Your task to perform on an android device: What's the weather? Image 0: 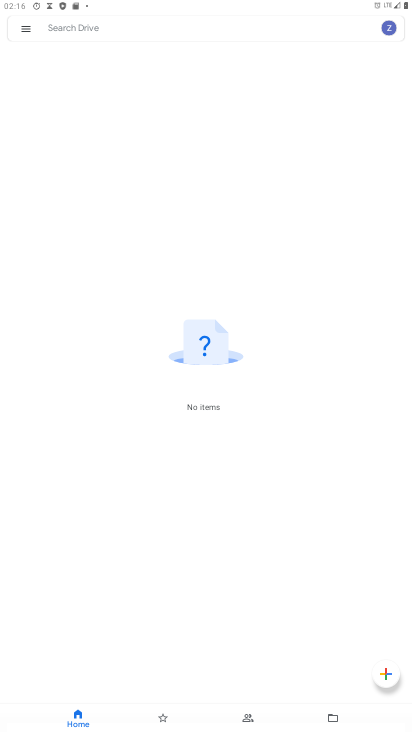
Step 0: press home button
Your task to perform on an android device: What's the weather? Image 1: 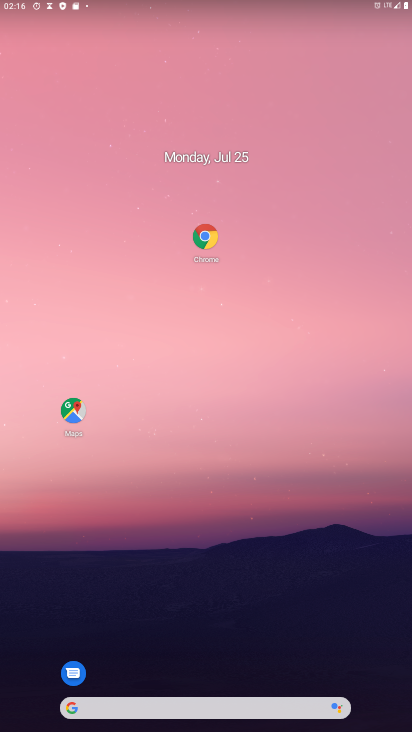
Step 1: drag from (157, 637) to (262, 0)
Your task to perform on an android device: What's the weather? Image 2: 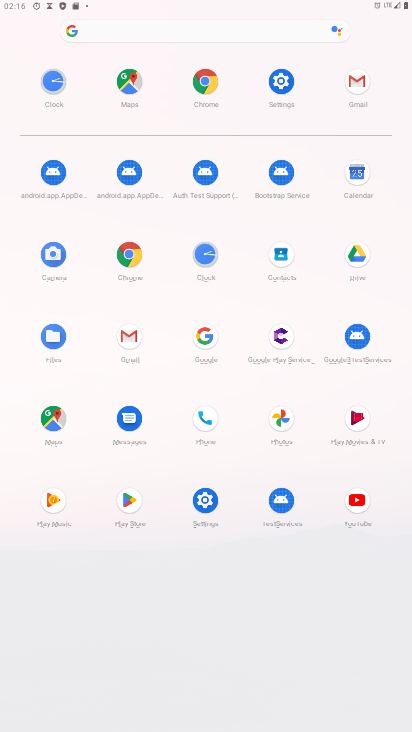
Step 2: click (129, 254)
Your task to perform on an android device: What's the weather? Image 3: 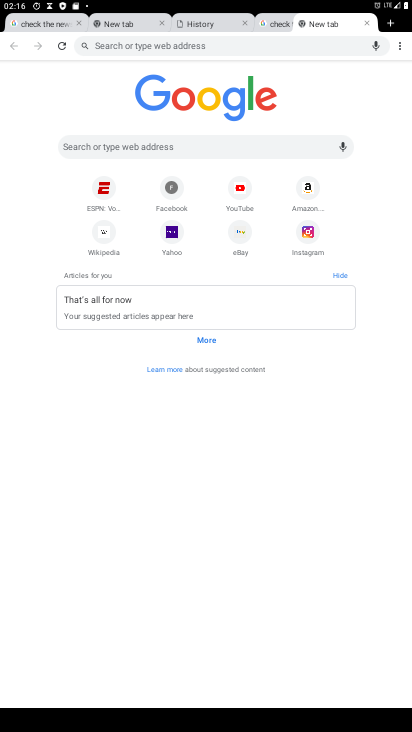
Step 3: click (256, 148)
Your task to perform on an android device: What's the weather? Image 4: 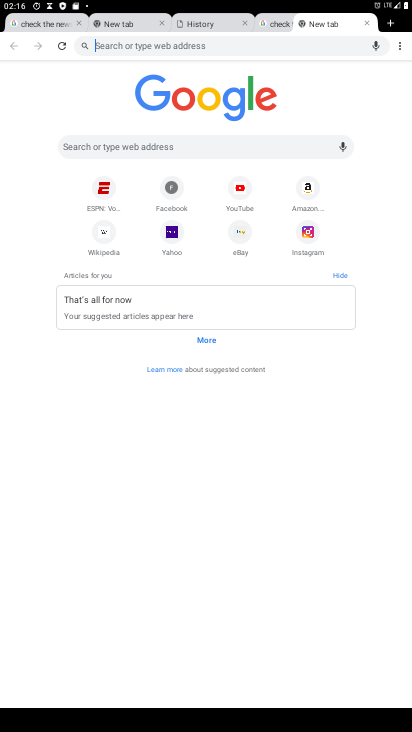
Step 4: click (256, 148)
Your task to perform on an android device: What's the weather? Image 5: 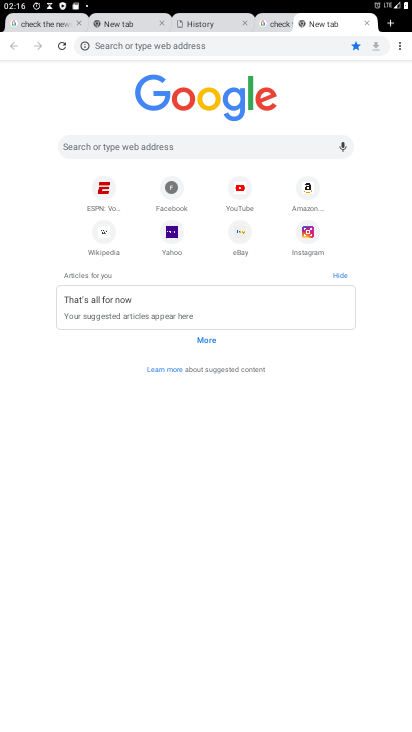
Step 5: click (229, 52)
Your task to perform on an android device: What's the weather? Image 6: 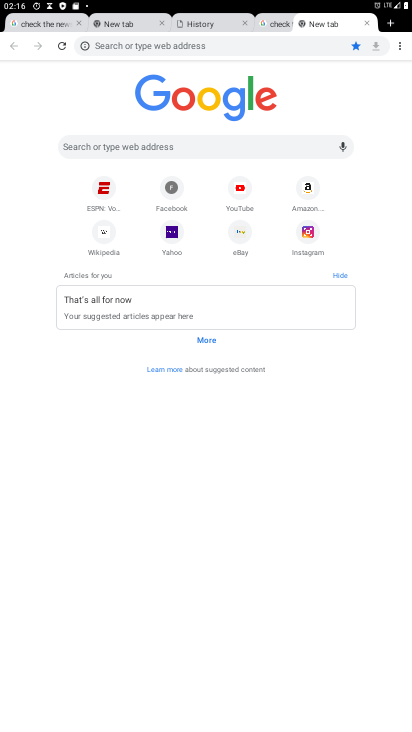
Step 6: click (229, 51)
Your task to perform on an android device: What's the weather? Image 7: 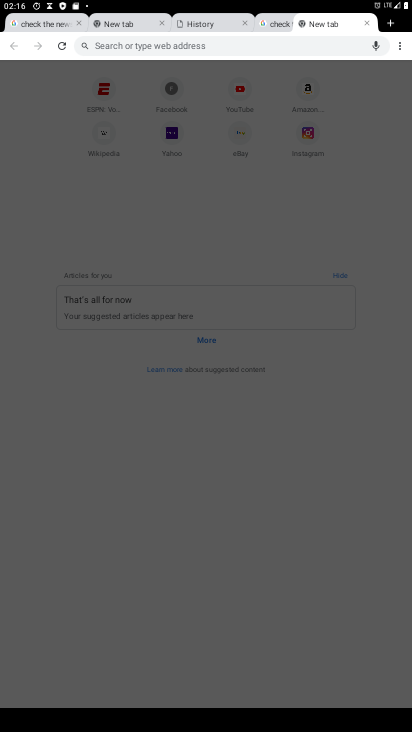
Step 7: type "whats the weather"
Your task to perform on an android device: What's the weather? Image 8: 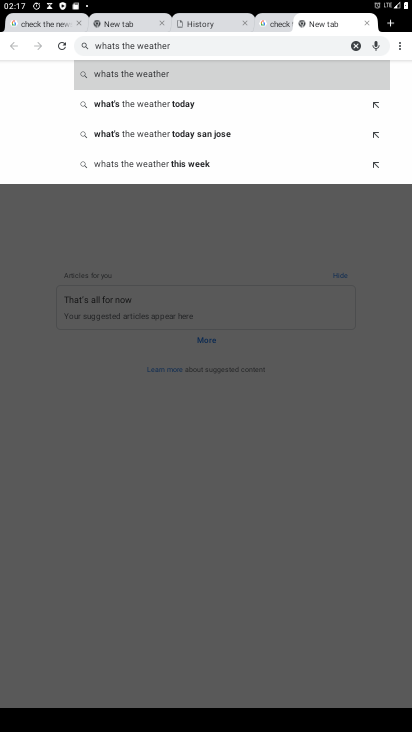
Step 8: click (292, 78)
Your task to perform on an android device: What's the weather? Image 9: 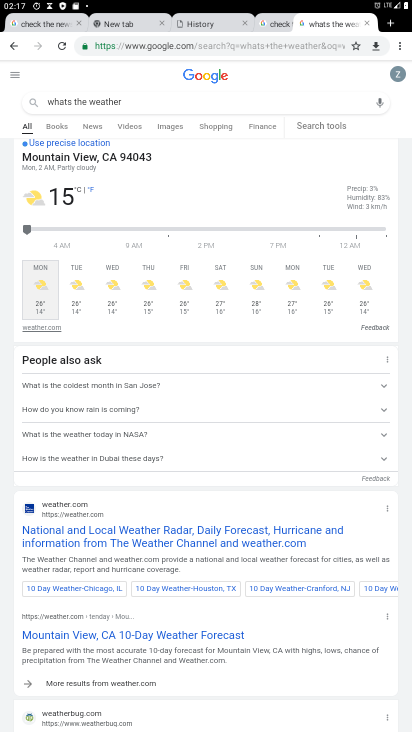
Step 9: task complete